Your task to perform on an android device: Check the news Image 0: 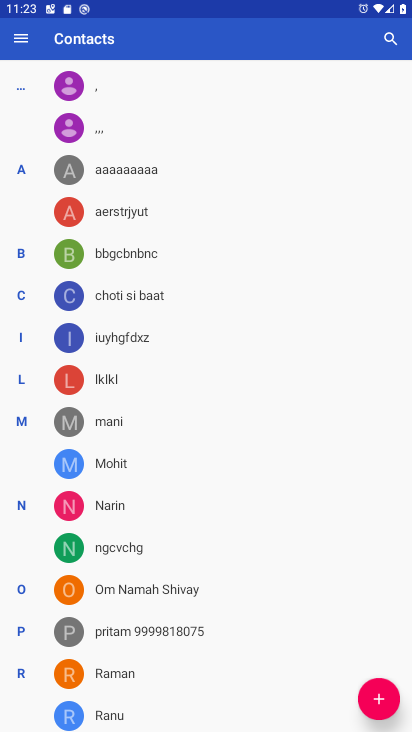
Step 0: press home button
Your task to perform on an android device: Check the news Image 1: 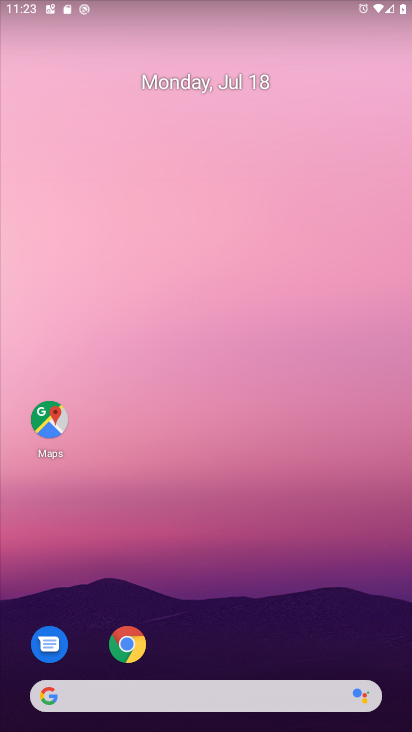
Step 1: click (185, 682)
Your task to perform on an android device: Check the news Image 2: 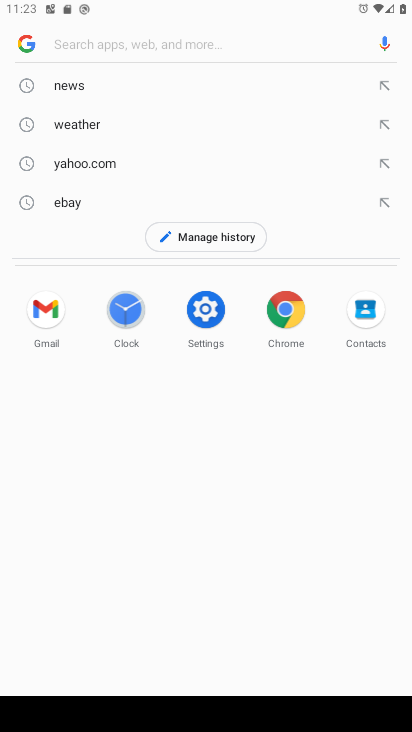
Step 2: click (121, 98)
Your task to perform on an android device: Check the news Image 3: 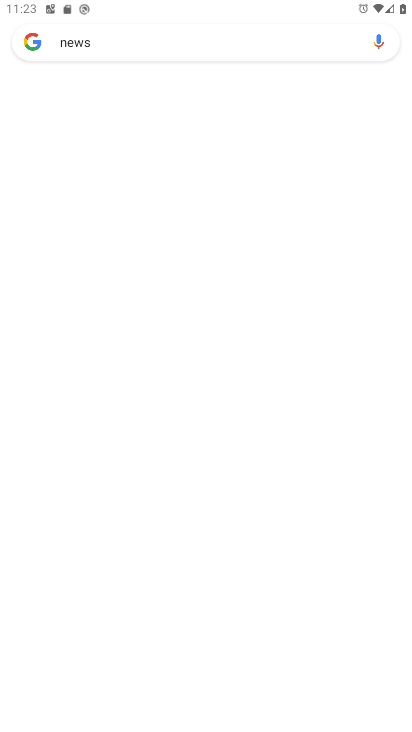
Step 3: task complete